Your task to perform on an android device: What's on my calendar today? Image 0: 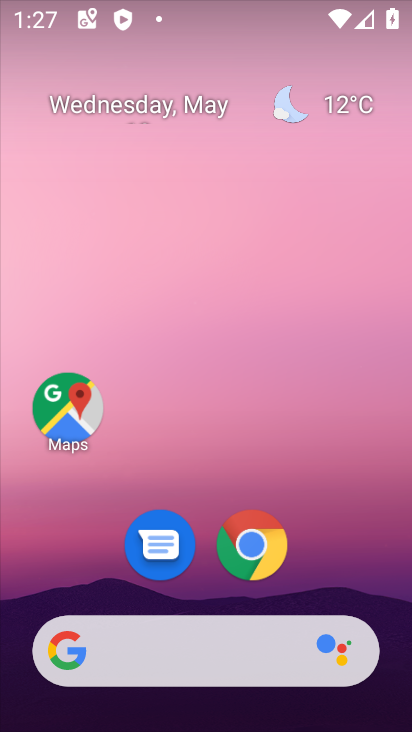
Step 0: drag from (334, 606) to (301, 88)
Your task to perform on an android device: What's on my calendar today? Image 1: 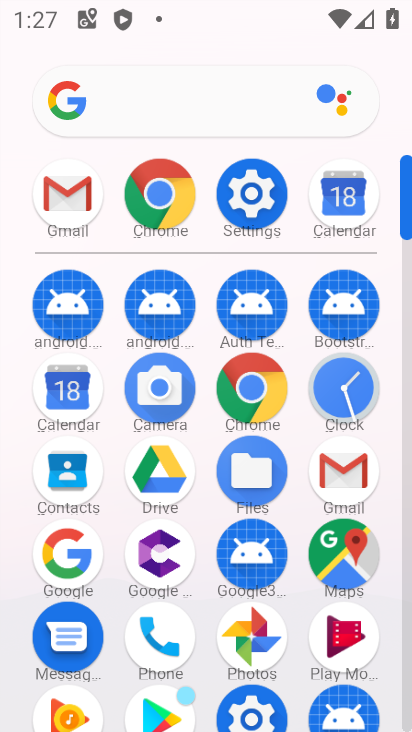
Step 1: click (72, 371)
Your task to perform on an android device: What's on my calendar today? Image 2: 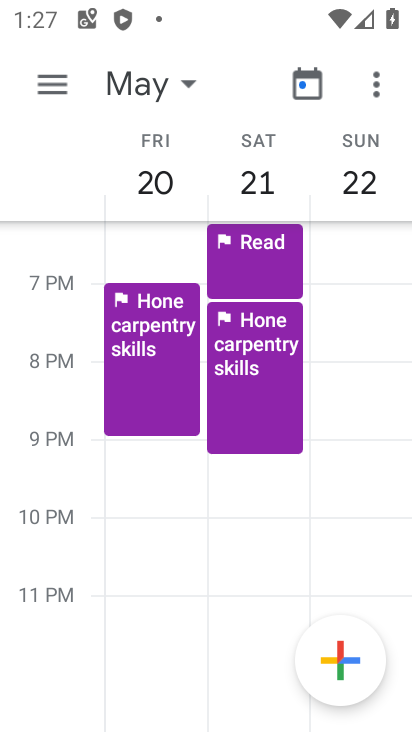
Step 2: click (60, 73)
Your task to perform on an android device: What's on my calendar today? Image 3: 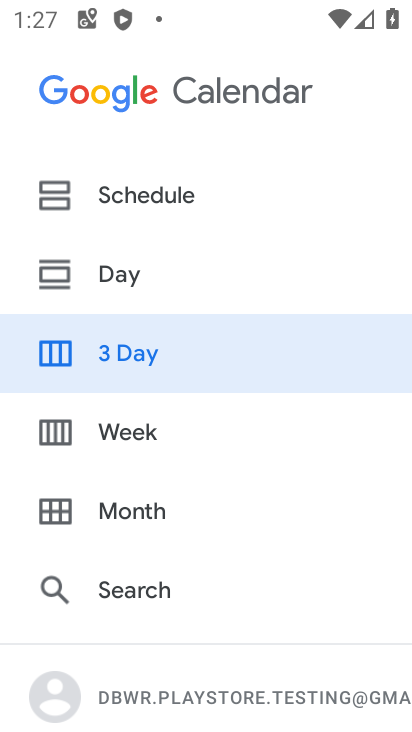
Step 3: click (127, 280)
Your task to perform on an android device: What's on my calendar today? Image 4: 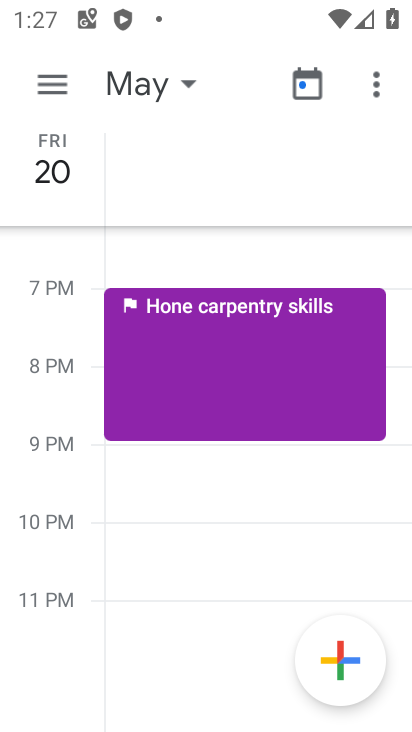
Step 4: click (191, 88)
Your task to perform on an android device: What's on my calendar today? Image 5: 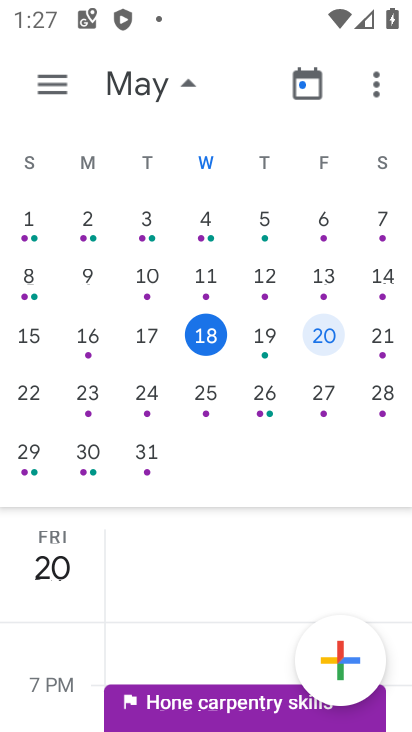
Step 5: click (201, 337)
Your task to perform on an android device: What's on my calendar today? Image 6: 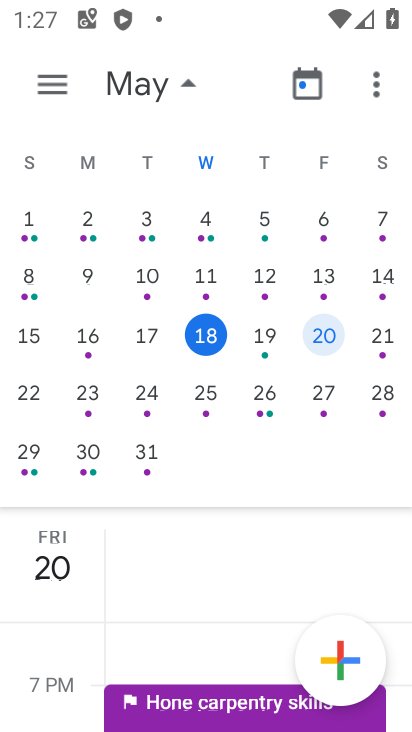
Step 6: drag from (273, 541) to (264, 413)
Your task to perform on an android device: What's on my calendar today? Image 7: 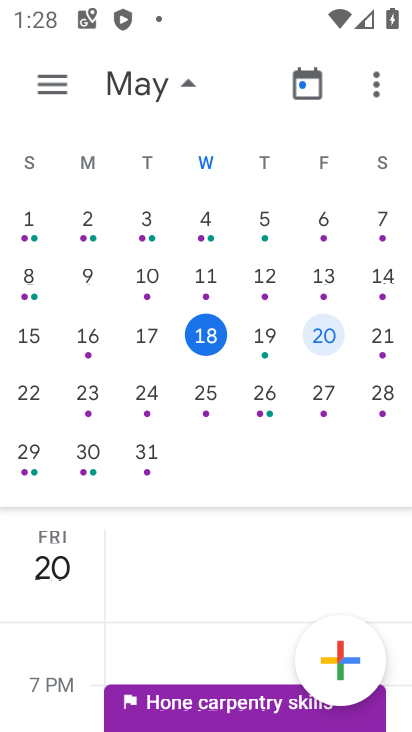
Step 7: click (209, 328)
Your task to perform on an android device: What's on my calendar today? Image 8: 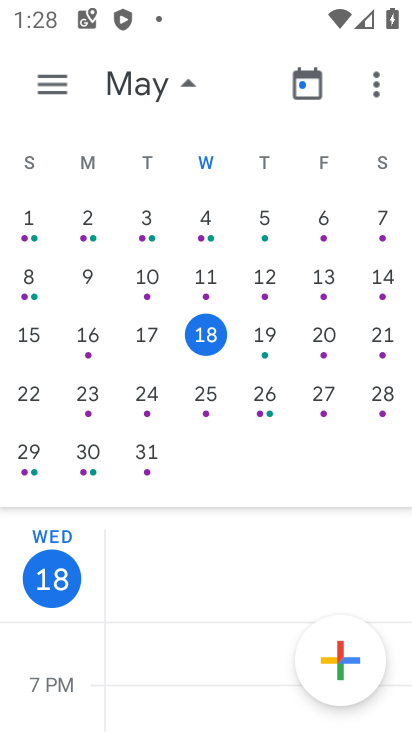
Step 8: task complete